Your task to perform on an android device: change the clock display to analog Image 0: 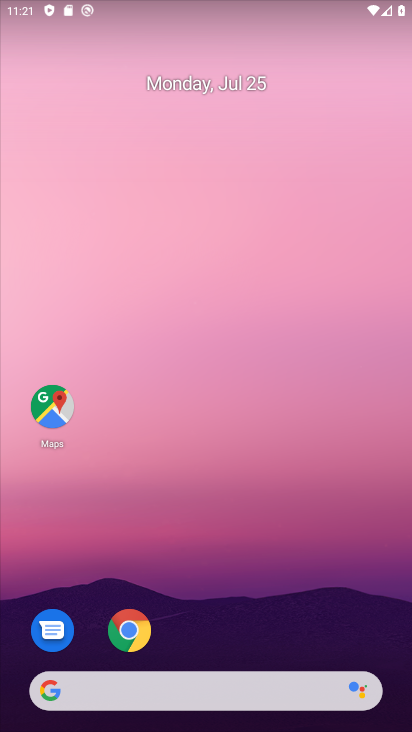
Step 0: drag from (312, 706) to (255, 208)
Your task to perform on an android device: change the clock display to analog Image 1: 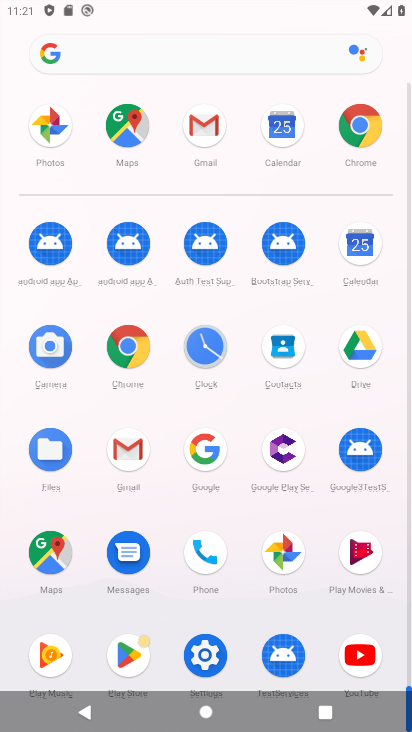
Step 1: click (350, 234)
Your task to perform on an android device: change the clock display to analog Image 2: 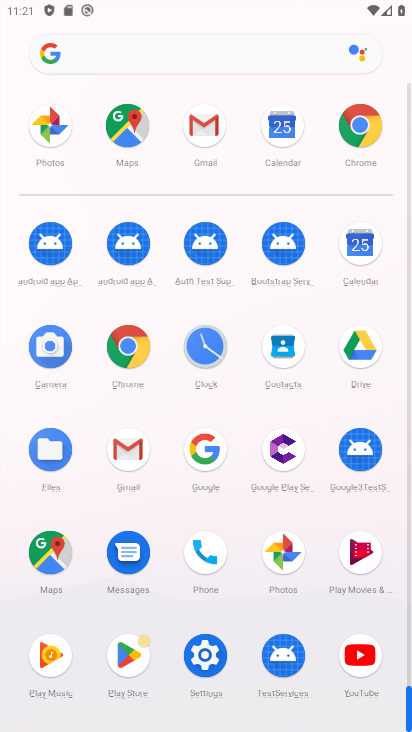
Step 2: click (350, 234)
Your task to perform on an android device: change the clock display to analog Image 3: 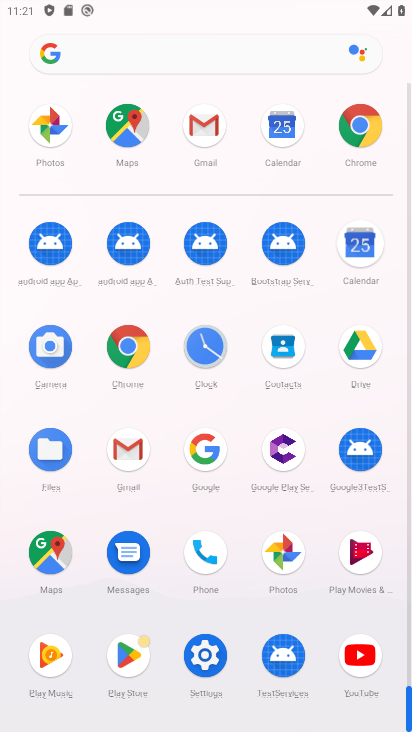
Step 3: click (353, 234)
Your task to perform on an android device: change the clock display to analog Image 4: 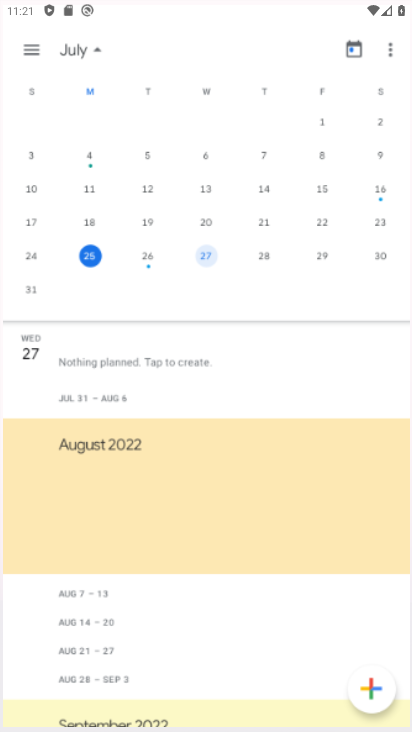
Step 4: click (354, 235)
Your task to perform on an android device: change the clock display to analog Image 5: 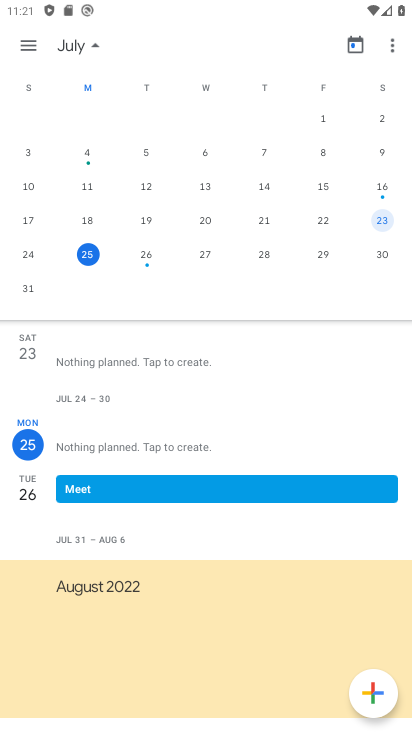
Step 5: press back button
Your task to perform on an android device: change the clock display to analog Image 6: 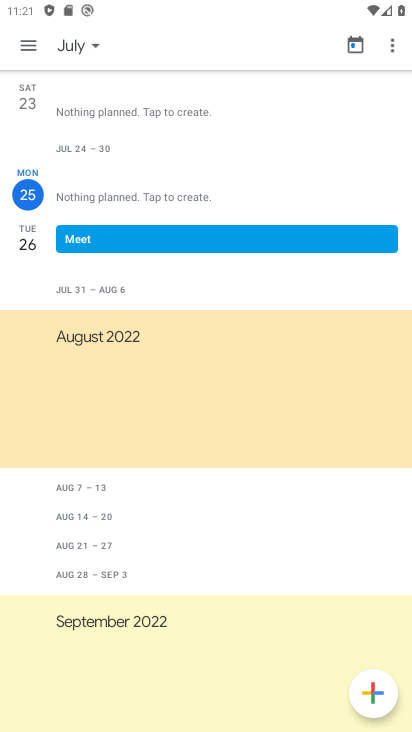
Step 6: press home button
Your task to perform on an android device: change the clock display to analog Image 7: 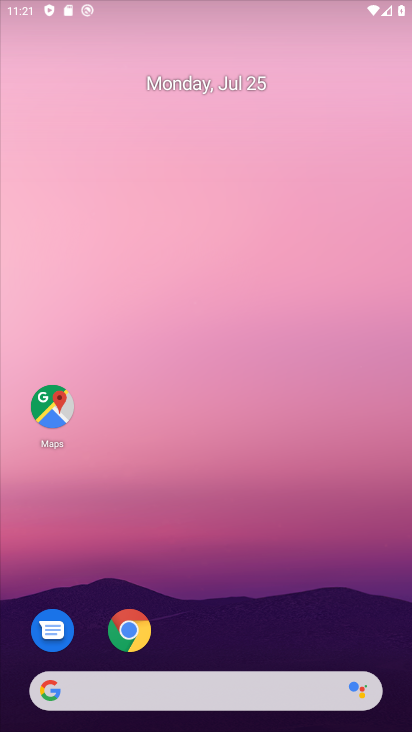
Step 7: drag from (226, 567) to (225, 189)
Your task to perform on an android device: change the clock display to analog Image 8: 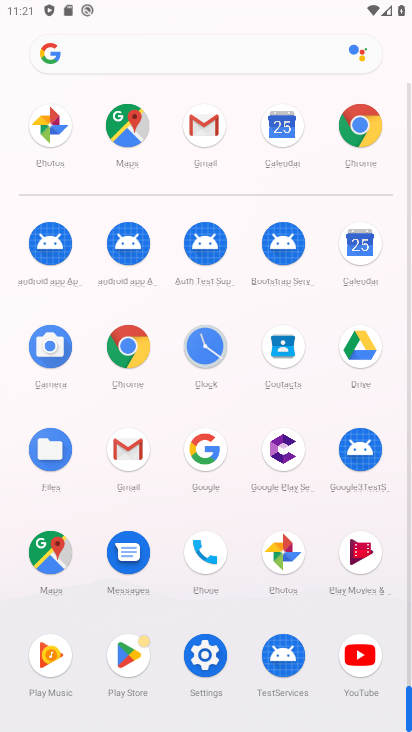
Step 8: click (207, 344)
Your task to perform on an android device: change the clock display to analog Image 9: 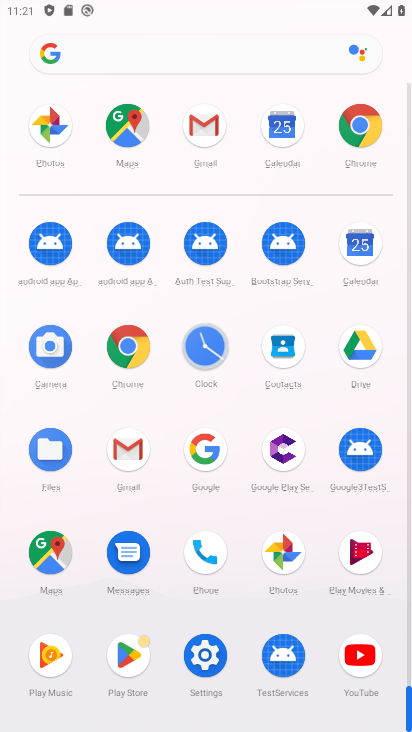
Step 9: click (206, 343)
Your task to perform on an android device: change the clock display to analog Image 10: 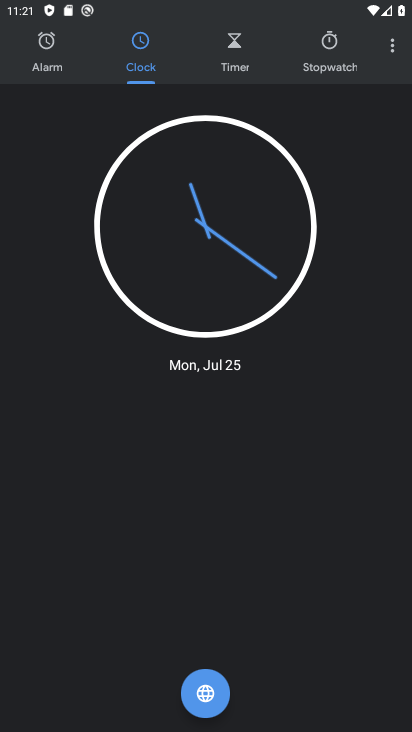
Step 10: click (389, 59)
Your task to perform on an android device: change the clock display to analog Image 11: 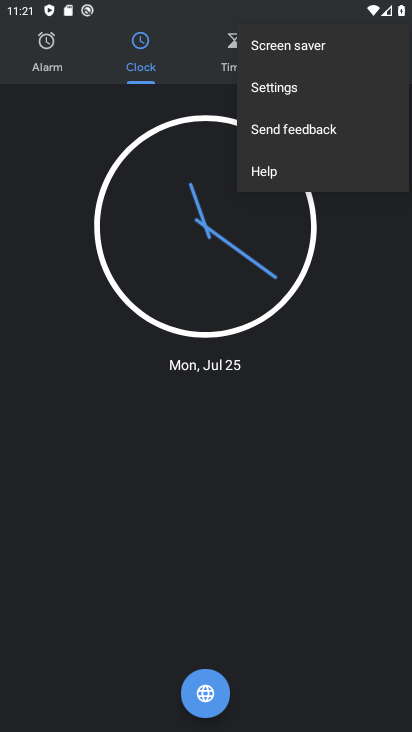
Step 11: click (298, 91)
Your task to perform on an android device: change the clock display to analog Image 12: 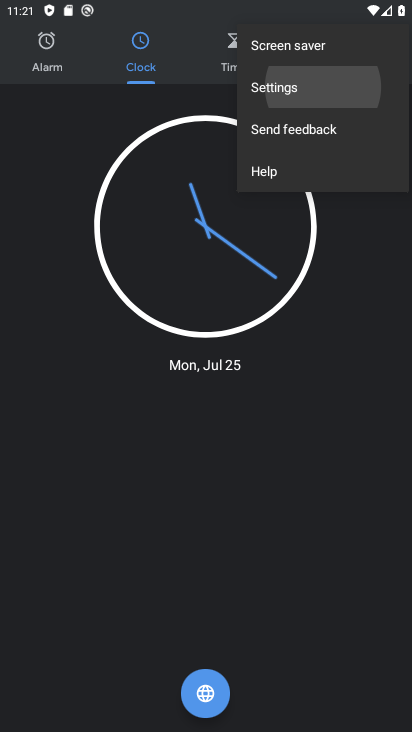
Step 12: click (298, 91)
Your task to perform on an android device: change the clock display to analog Image 13: 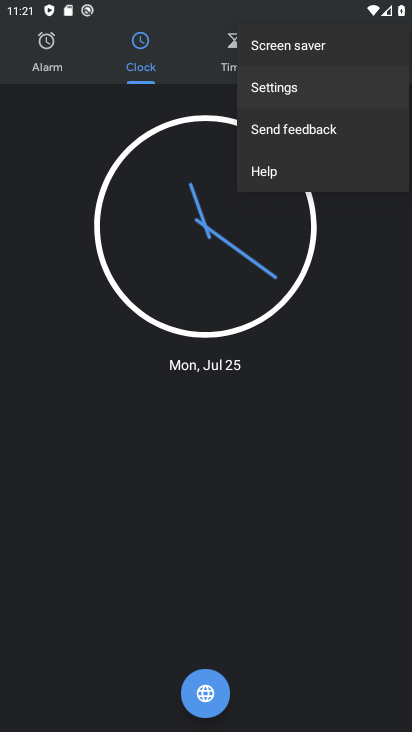
Step 13: click (297, 92)
Your task to perform on an android device: change the clock display to analog Image 14: 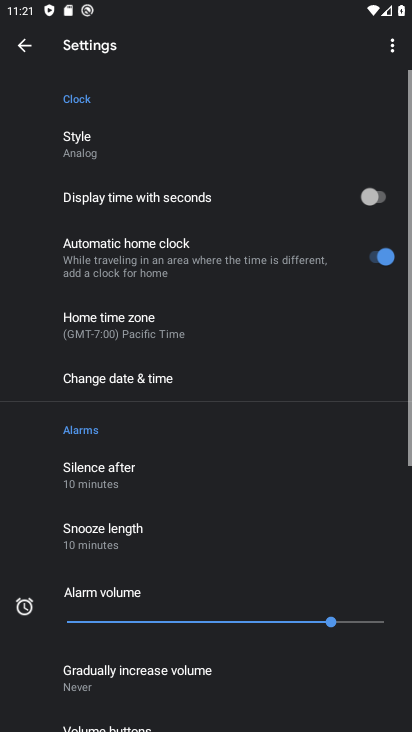
Step 14: click (85, 145)
Your task to perform on an android device: change the clock display to analog Image 15: 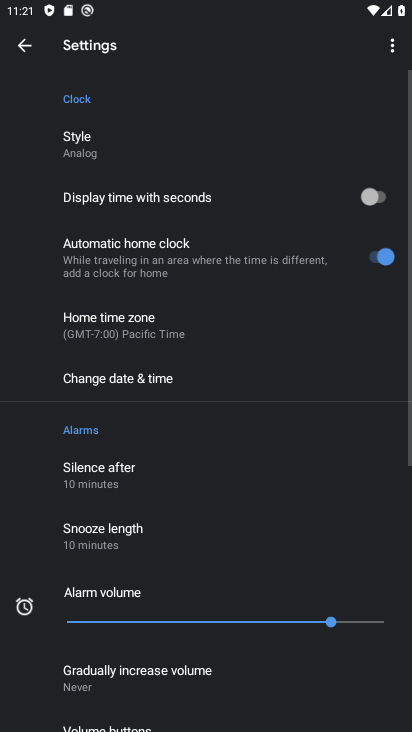
Step 15: click (85, 145)
Your task to perform on an android device: change the clock display to analog Image 16: 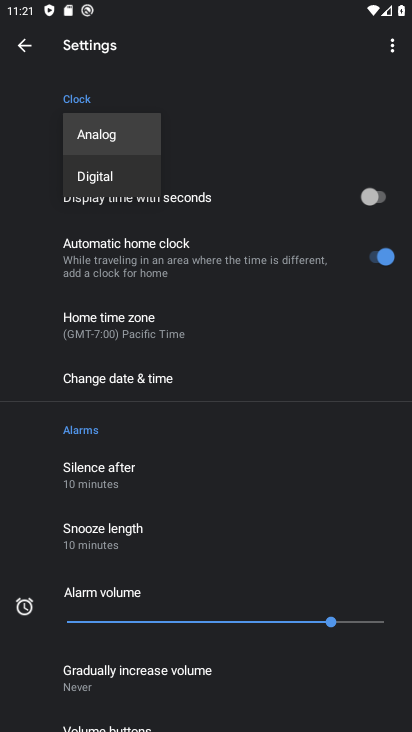
Step 16: click (97, 181)
Your task to perform on an android device: change the clock display to analog Image 17: 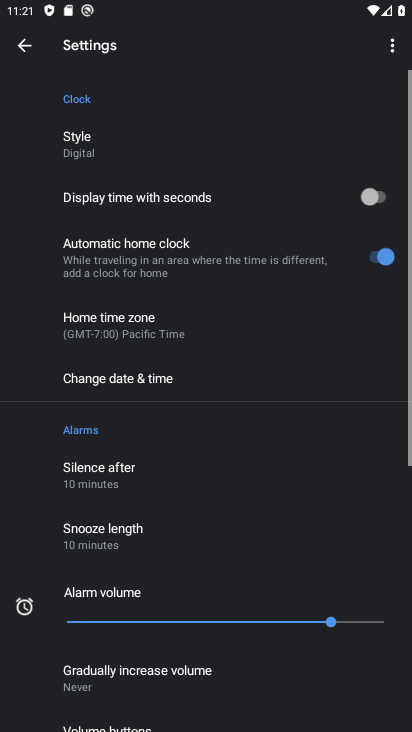
Step 17: click (98, 123)
Your task to perform on an android device: change the clock display to analog Image 18: 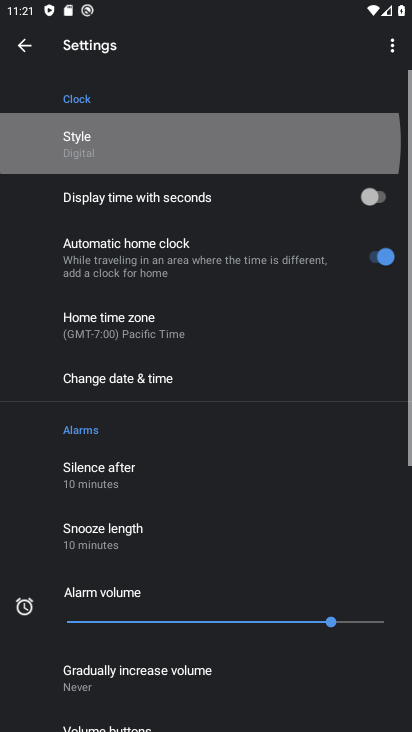
Step 18: click (91, 145)
Your task to perform on an android device: change the clock display to analog Image 19: 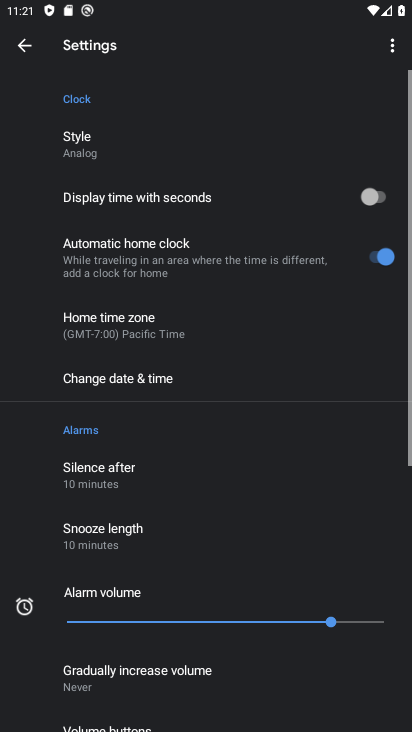
Step 19: click (92, 150)
Your task to perform on an android device: change the clock display to analog Image 20: 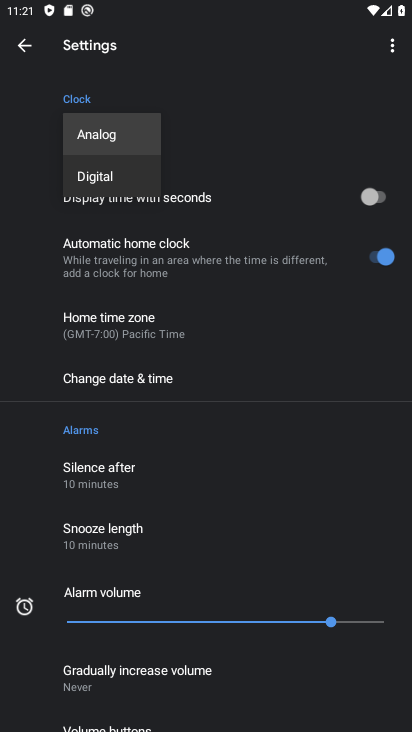
Step 20: click (91, 142)
Your task to perform on an android device: change the clock display to analog Image 21: 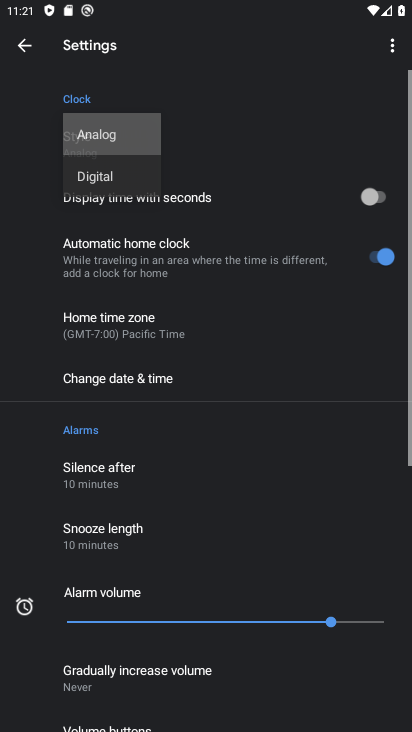
Step 21: click (91, 141)
Your task to perform on an android device: change the clock display to analog Image 22: 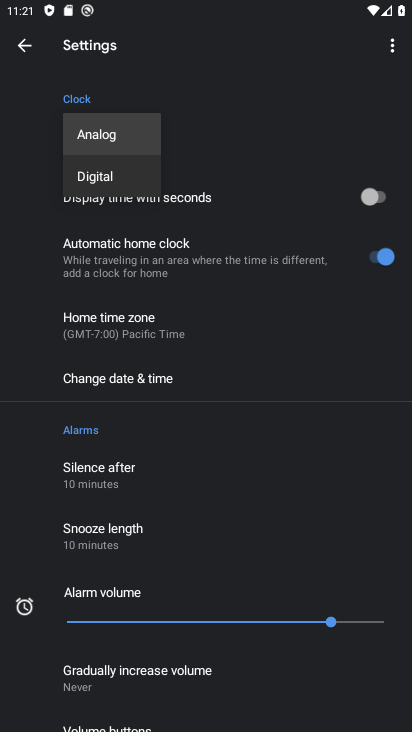
Step 22: click (100, 138)
Your task to perform on an android device: change the clock display to analog Image 23: 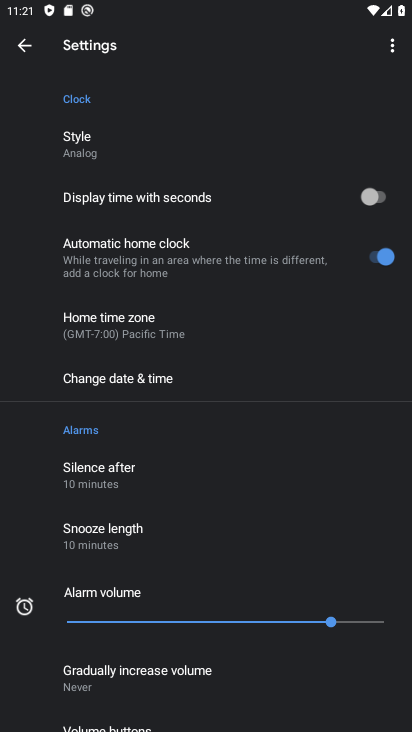
Step 23: task complete